Your task to perform on an android device: open app "Mercado Libre" (install if not already installed) Image 0: 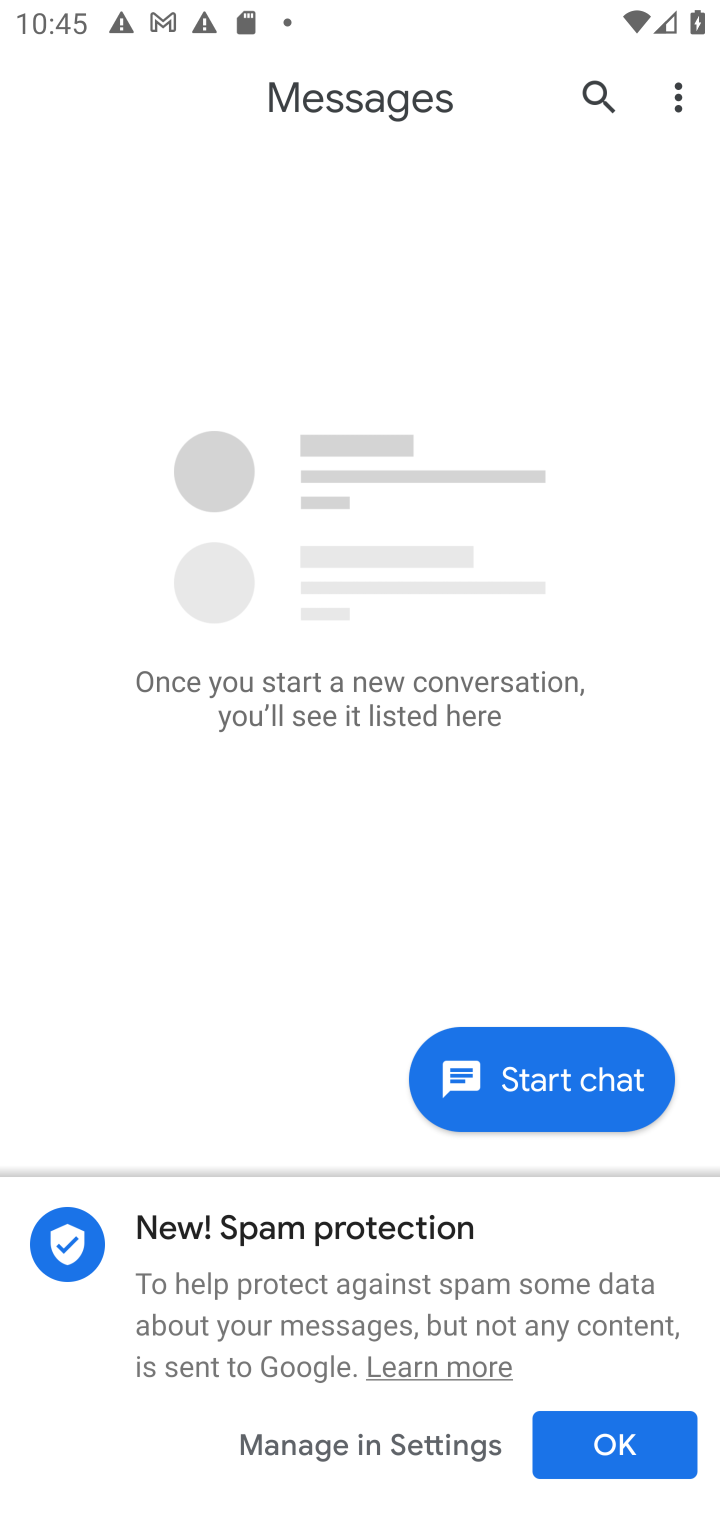
Step 0: press home button
Your task to perform on an android device: open app "Mercado Libre" (install if not already installed) Image 1: 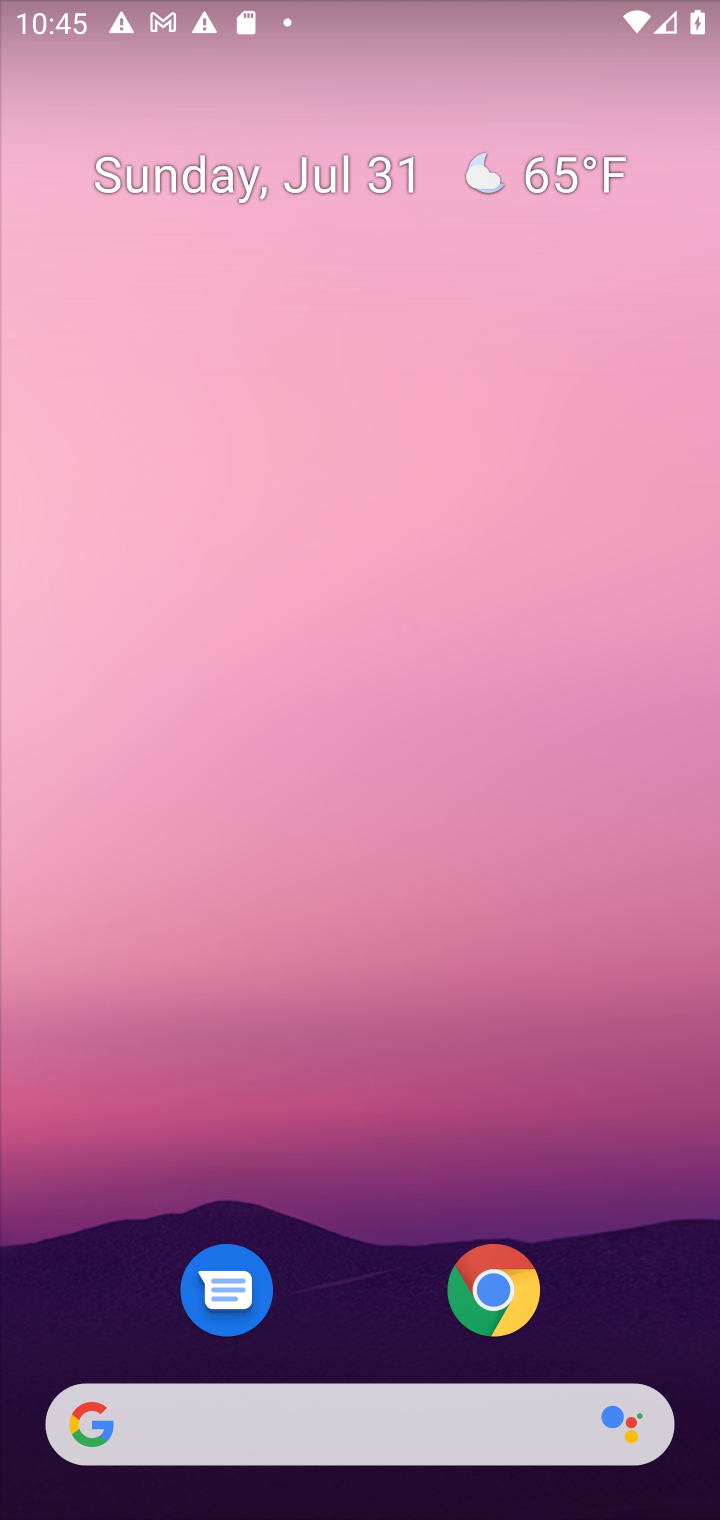
Step 1: drag from (631, 1292) to (545, 201)
Your task to perform on an android device: open app "Mercado Libre" (install if not already installed) Image 2: 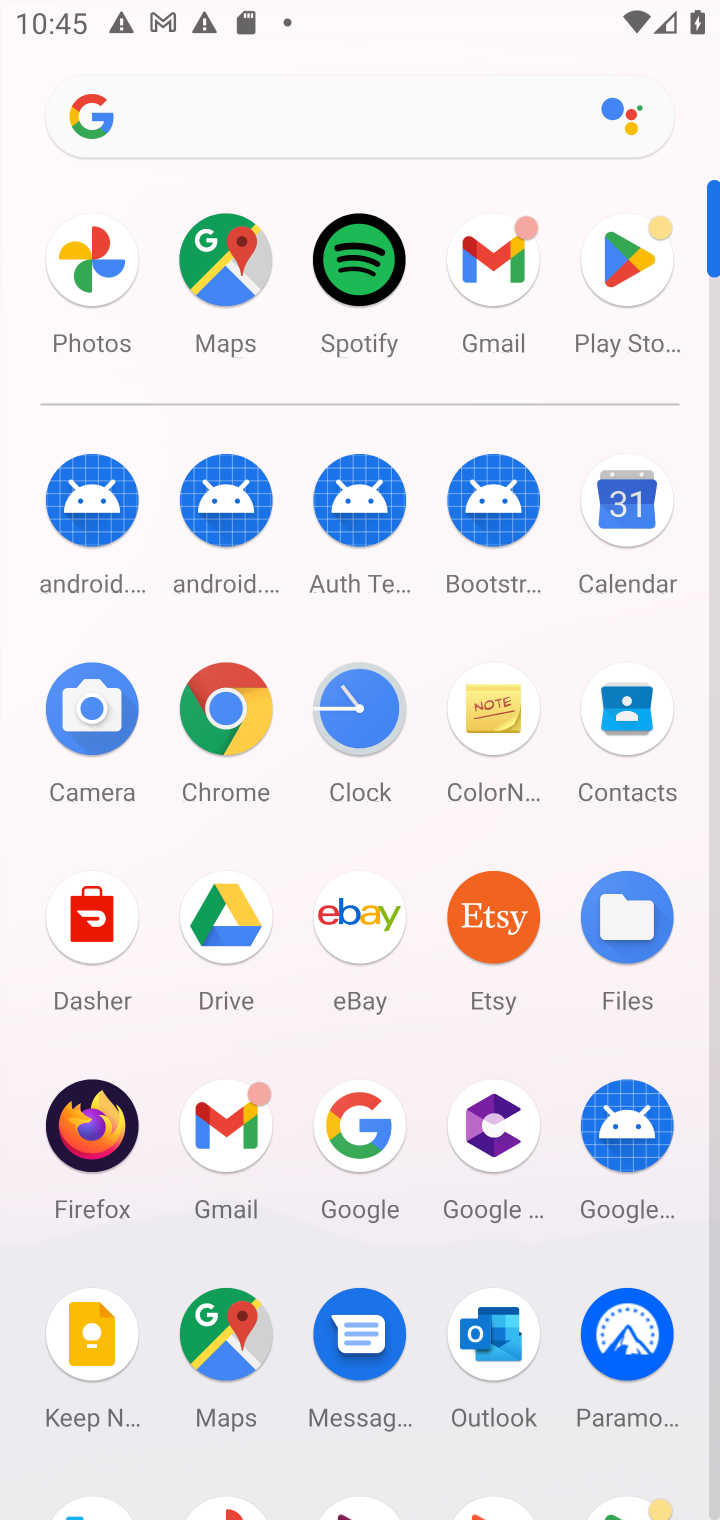
Step 2: click (615, 265)
Your task to perform on an android device: open app "Mercado Libre" (install if not already installed) Image 3: 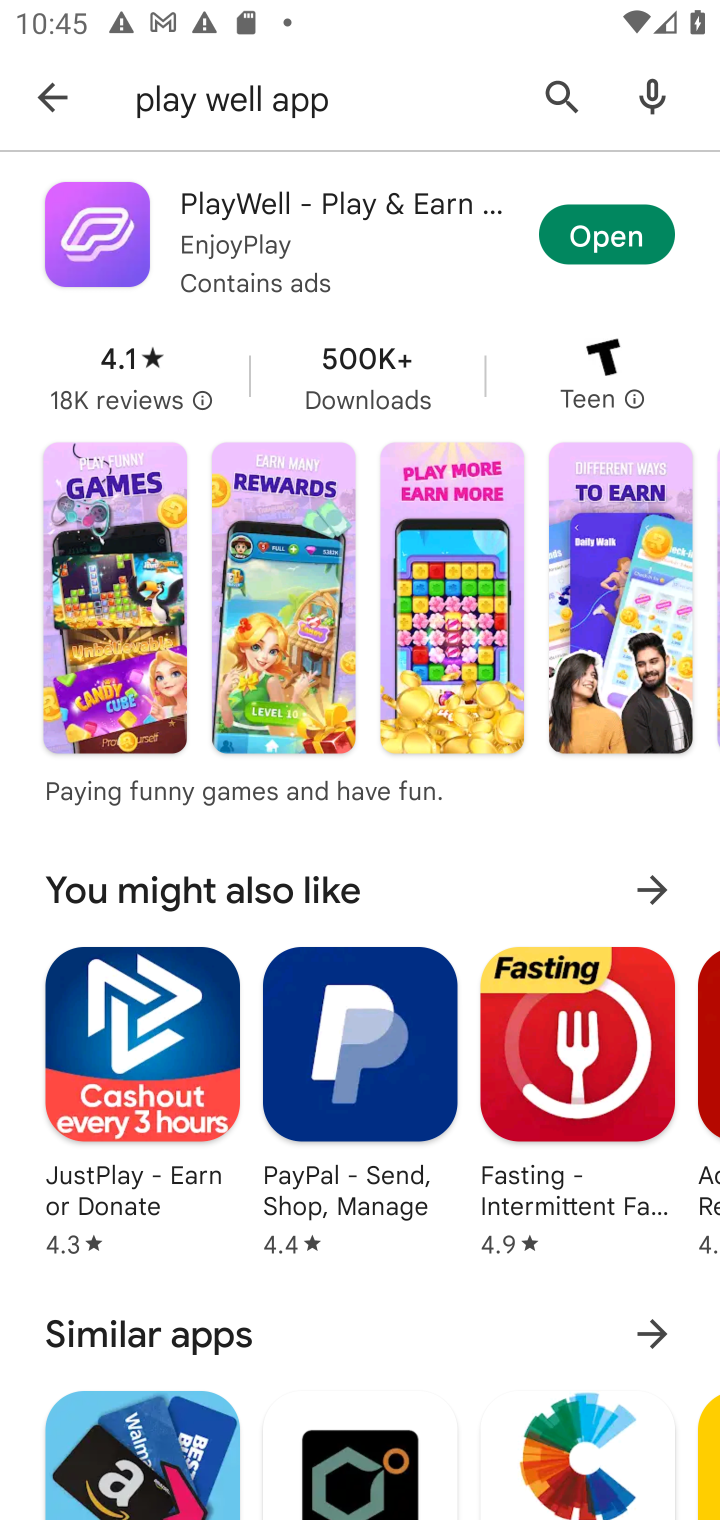
Step 3: click (563, 76)
Your task to perform on an android device: open app "Mercado Libre" (install if not already installed) Image 4: 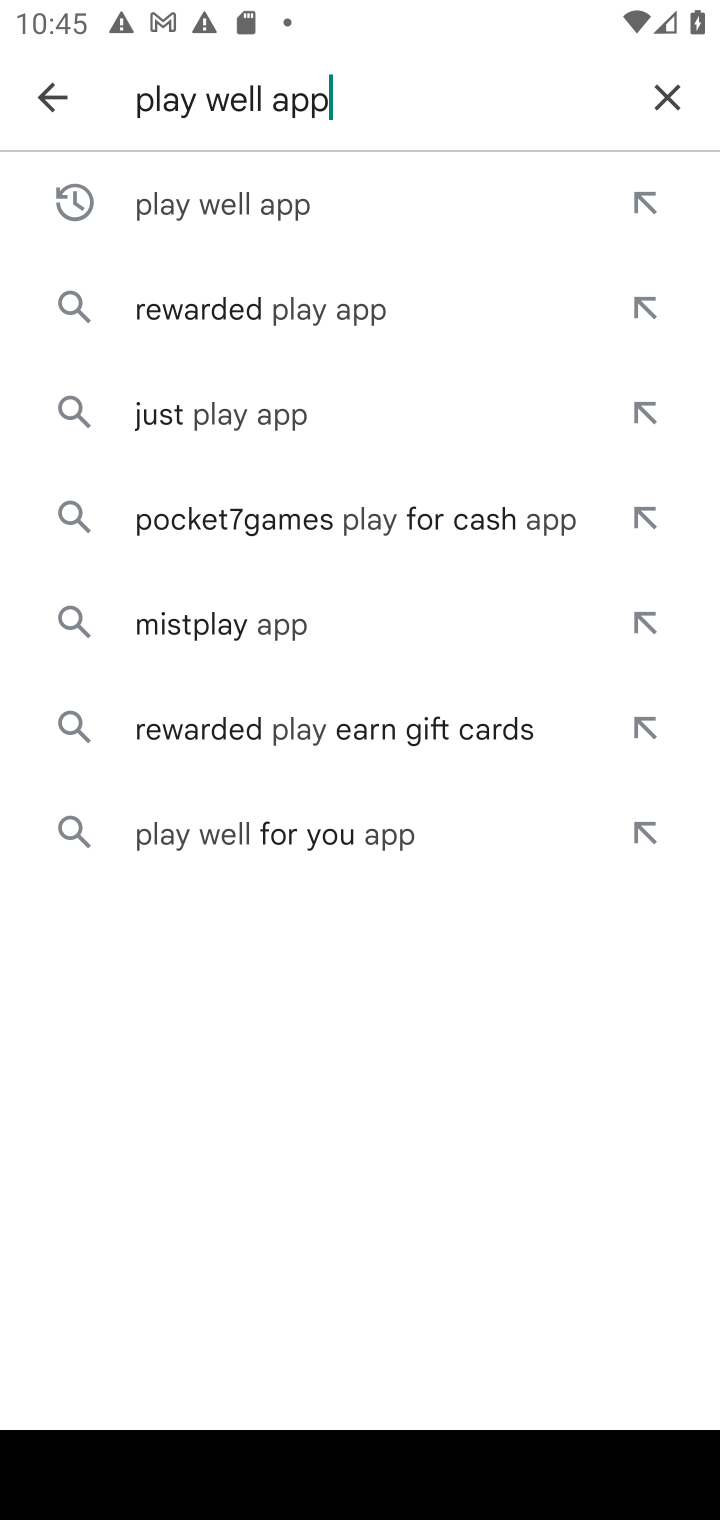
Step 4: click (660, 100)
Your task to perform on an android device: open app "Mercado Libre" (install if not already installed) Image 5: 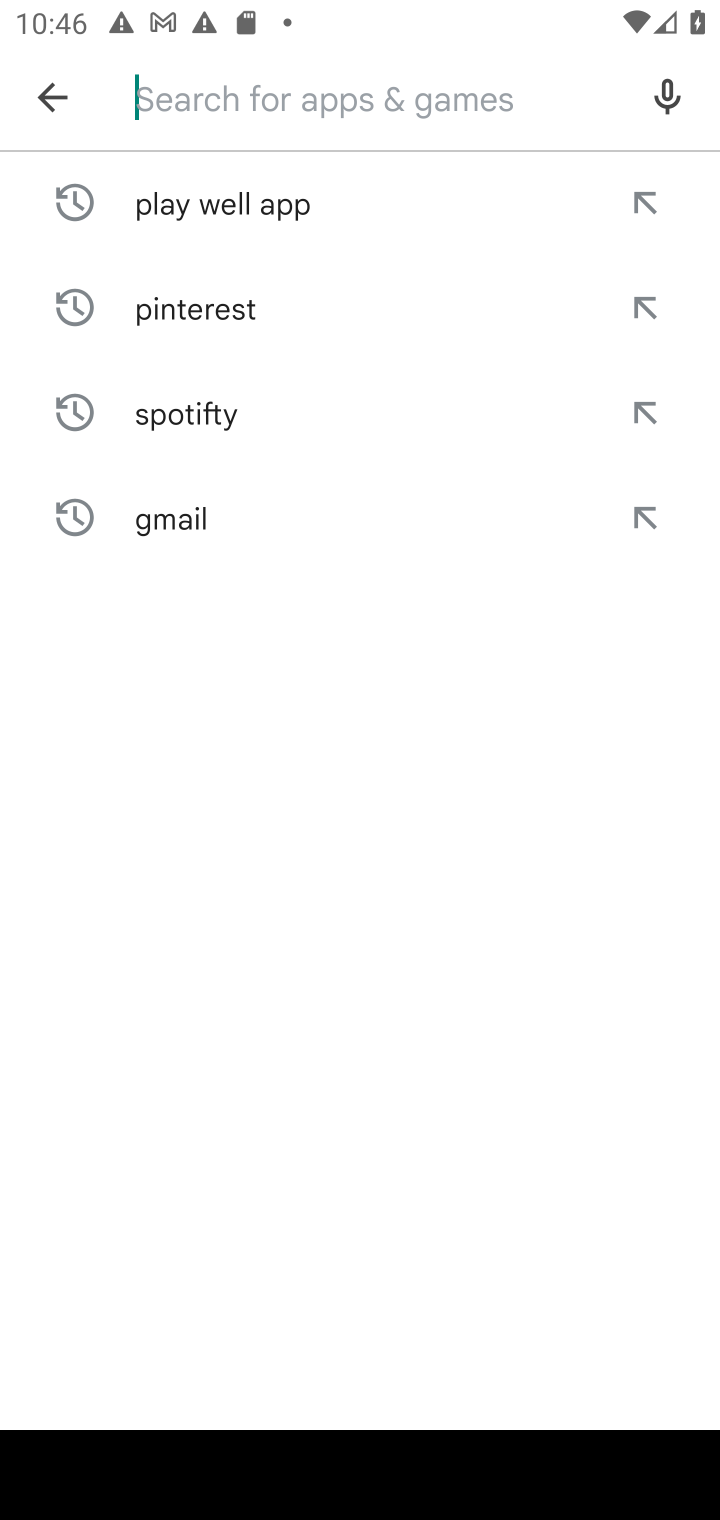
Step 5: type "mercado l.ibre"
Your task to perform on an android device: open app "Mercado Libre" (install if not already installed) Image 6: 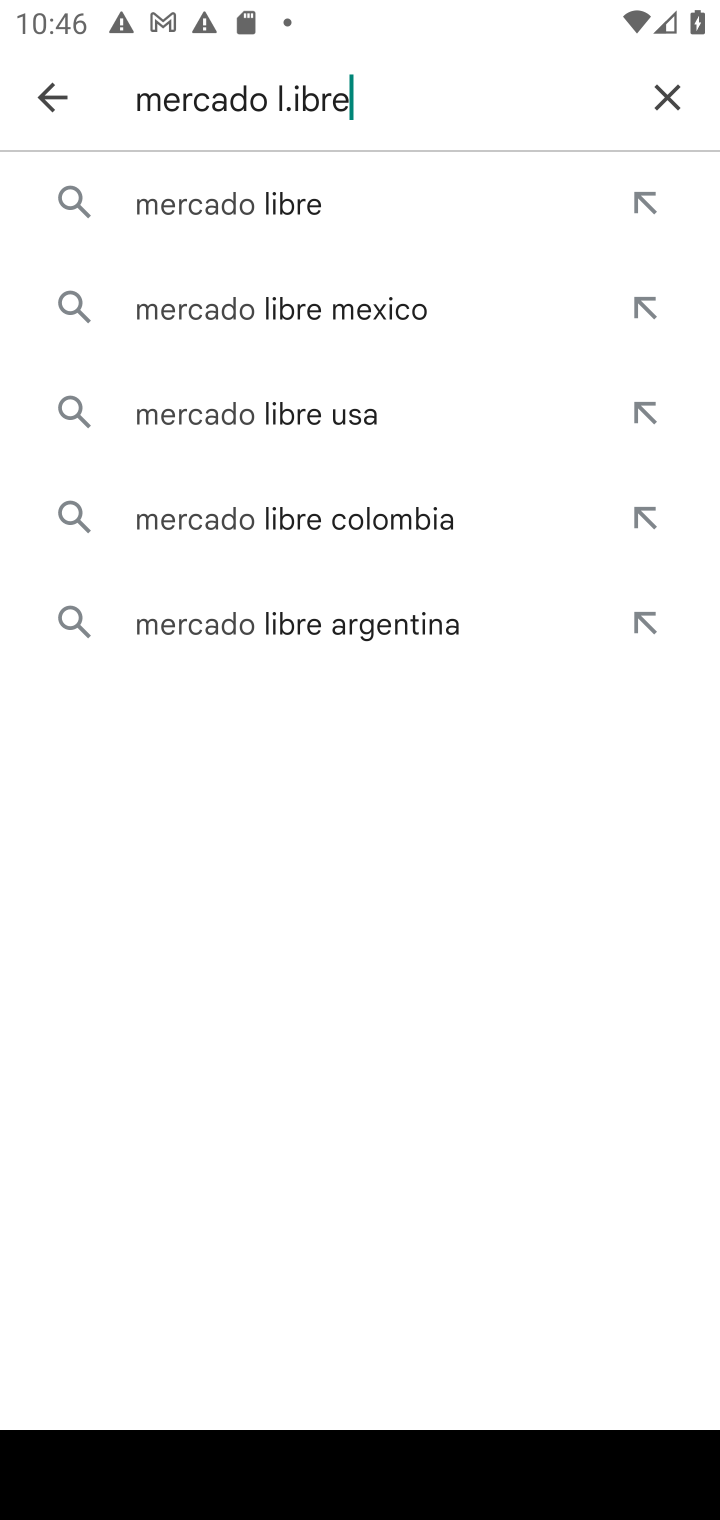
Step 6: click (318, 224)
Your task to perform on an android device: open app "Mercado Libre" (install if not already installed) Image 7: 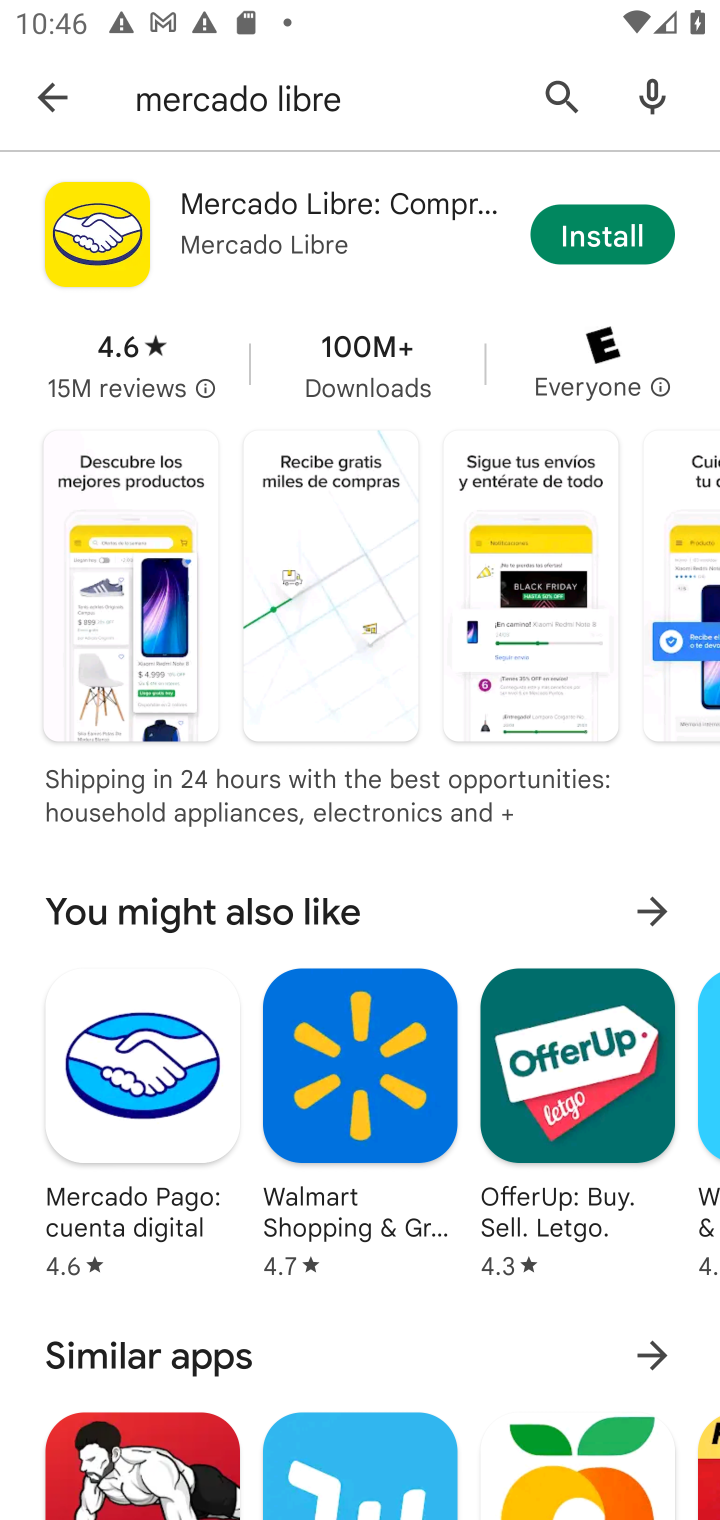
Step 7: click (582, 215)
Your task to perform on an android device: open app "Mercado Libre" (install if not already installed) Image 8: 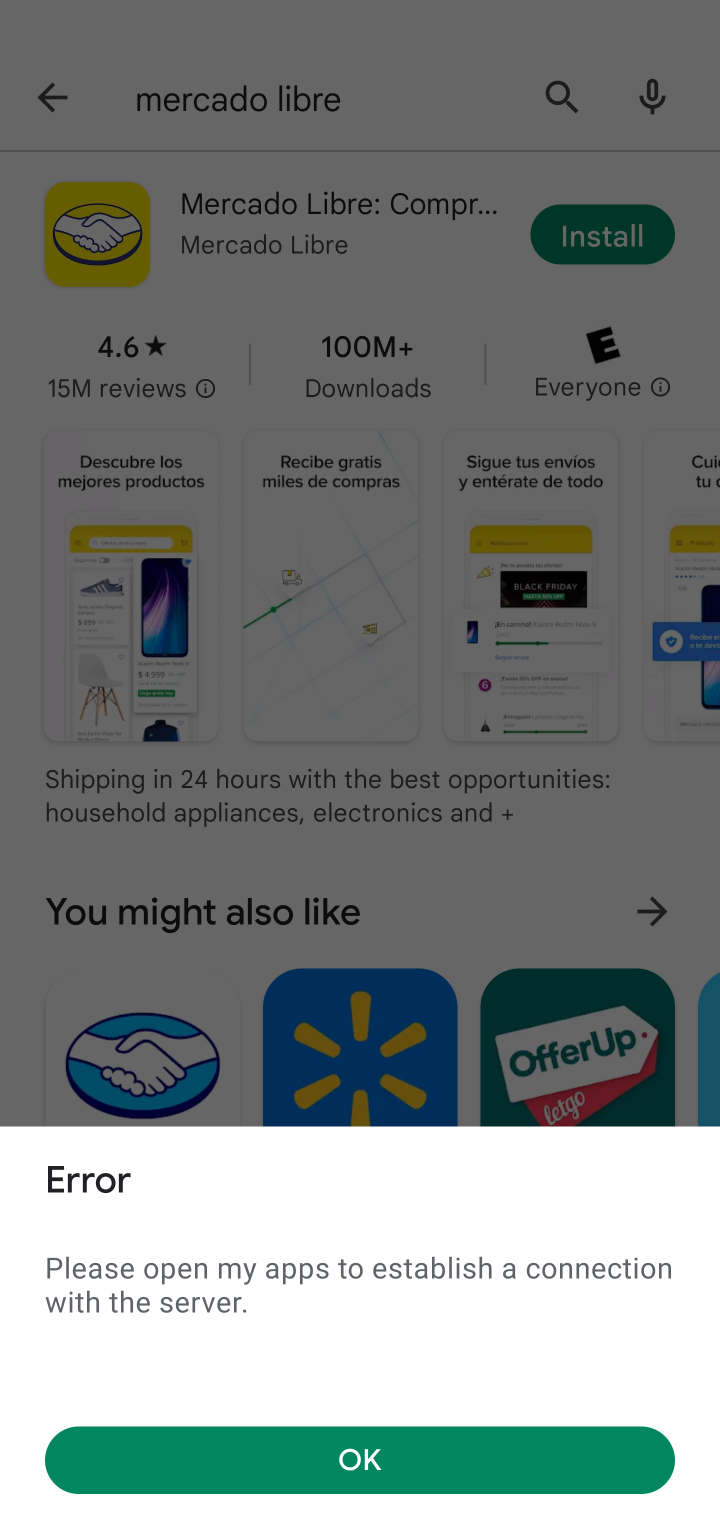
Step 8: task complete